Your task to perform on an android device: change the clock display to analog Image 0: 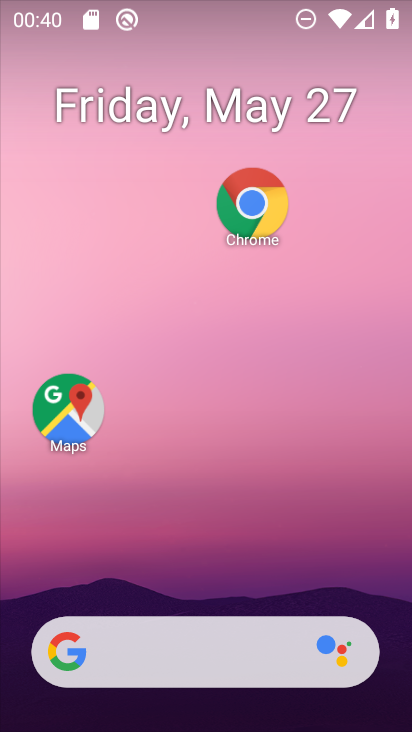
Step 0: drag from (204, 562) to (81, 15)
Your task to perform on an android device: change the clock display to analog Image 1: 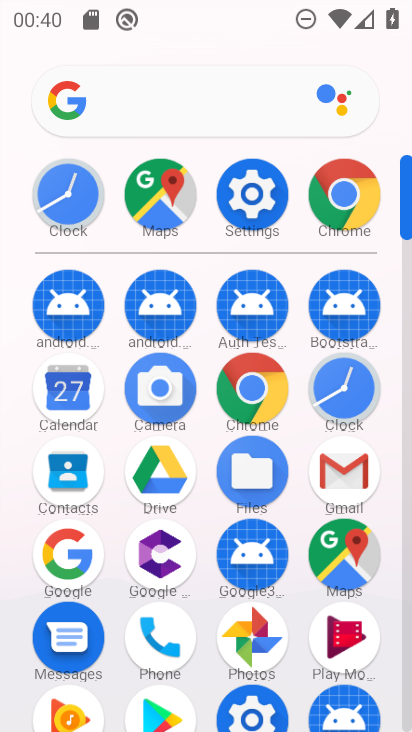
Step 1: click (341, 382)
Your task to perform on an android device: change the clock display to analog Image 2: 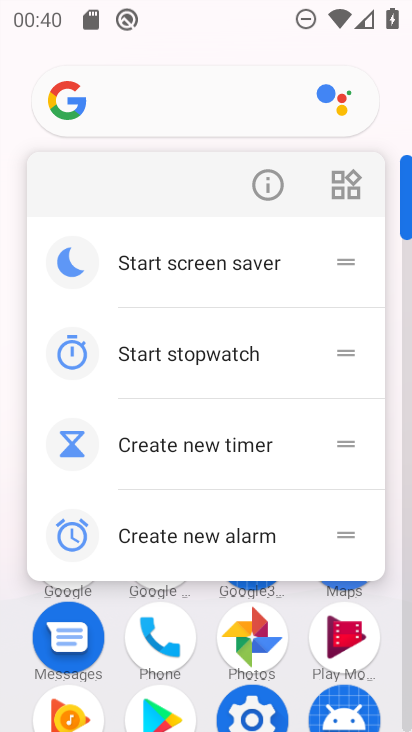
Step 2: click (262, 181)
Your task to perform on an android device: change the clock display to analog Image 3: 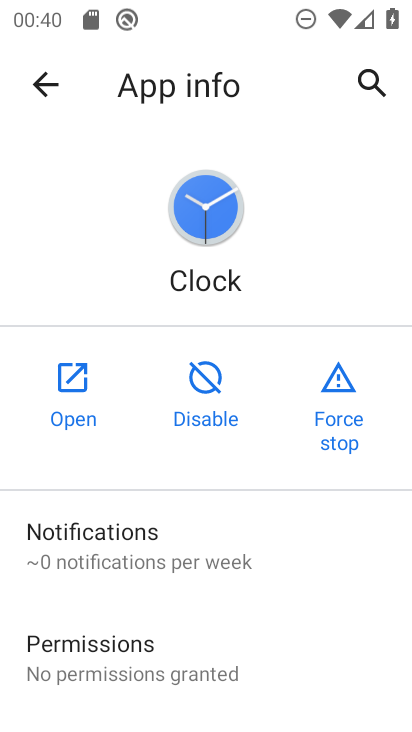
Step 3: click (91, 377)
Your task to perform on an android device: change the clock display to analog Image 4: 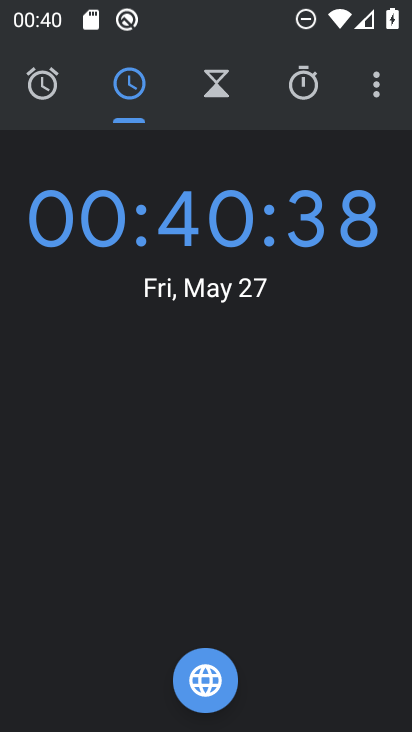
Step 4: click (384, 84)
Your task to perform on an android device: change the clock display to analog Image 5: 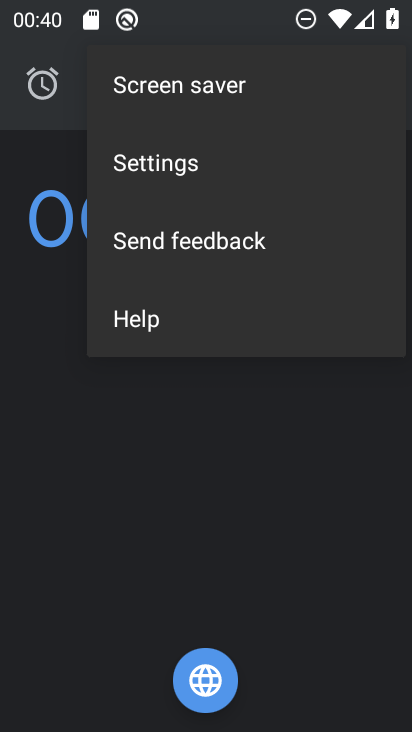
Step 5: click (226, 168)
Your task to perform on an android device: change the clock display to analog Image 6: 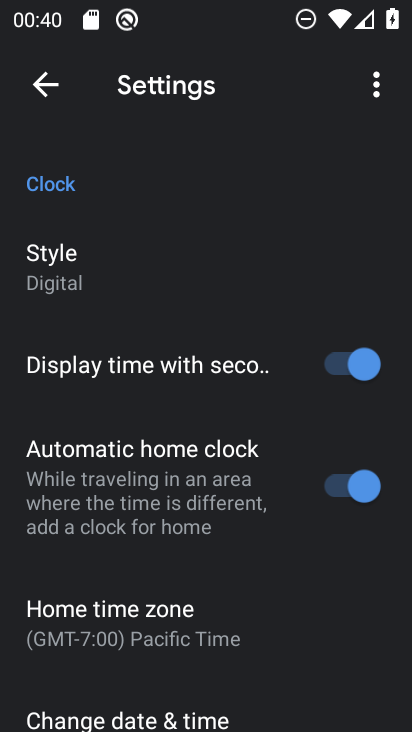
Step 6: click (111, 288)
Your task to perform on an android device: change the clock display to analog Image 7: 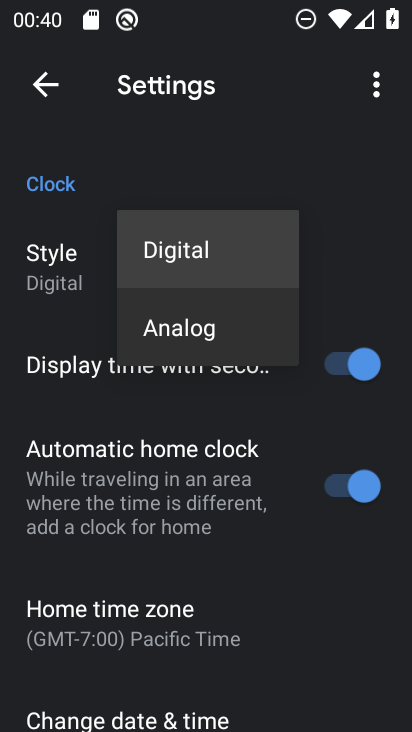
Step 7: click (176, 303)
Your task to perform on an android device: change the clock display to analog Image 8: 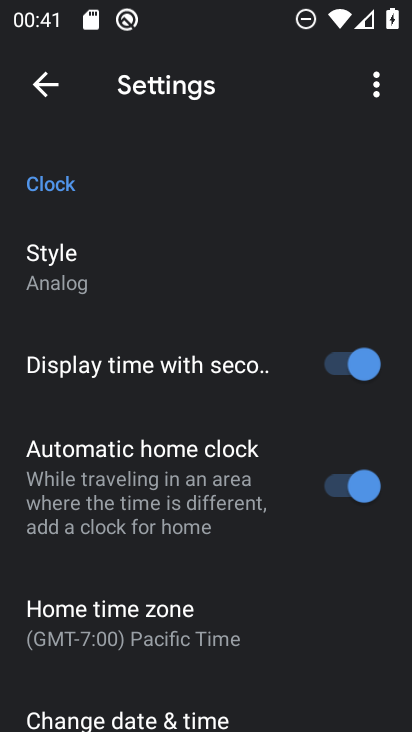
Step 8: task complete